Your task to perform on an android device: set default search engine in the chrome app Image 0: 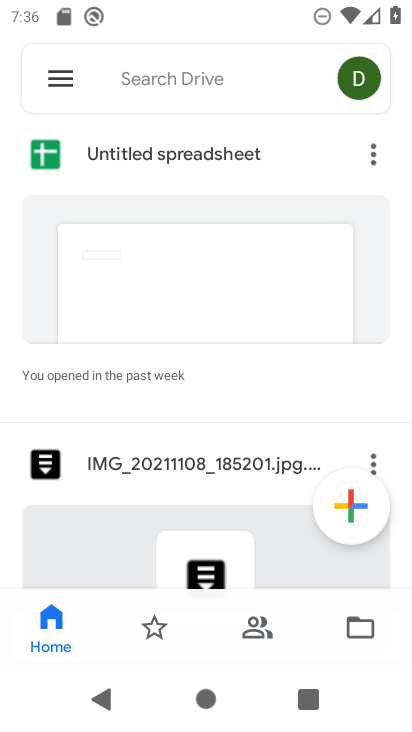
Step 0: press home button
Your task to perform on an android device: set default search engine in the chrome app Image 1: 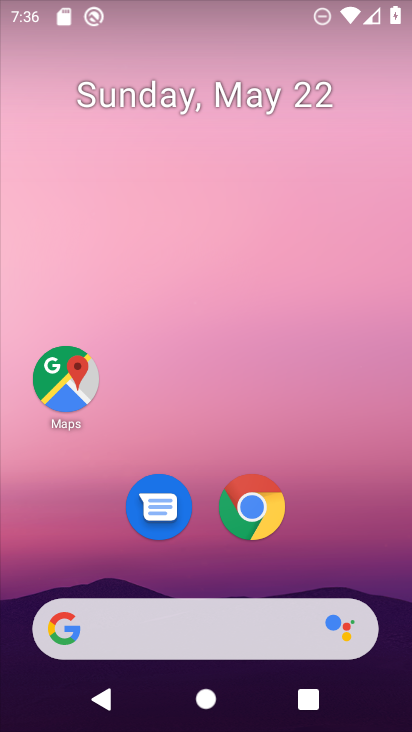
Step 1: click (258, 505)
Your task to perform on an android device: set default search engine in the chrome app Image 2: 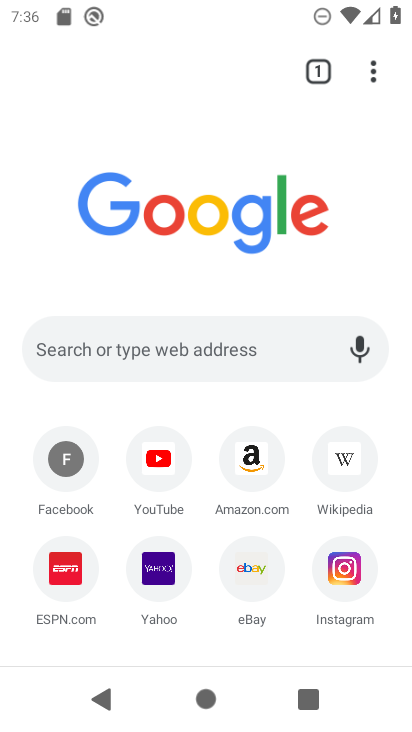
Step 2: click (375, 69)
Your task to perform on an android device: set default search engine in the chrome app Image 3: 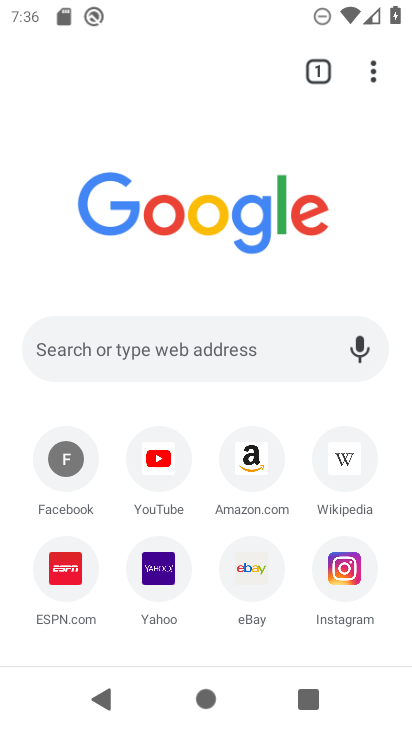
Step 3: click (382, 76)
Your task to perform on an android device: set default search engine in the chrome app Image 4: 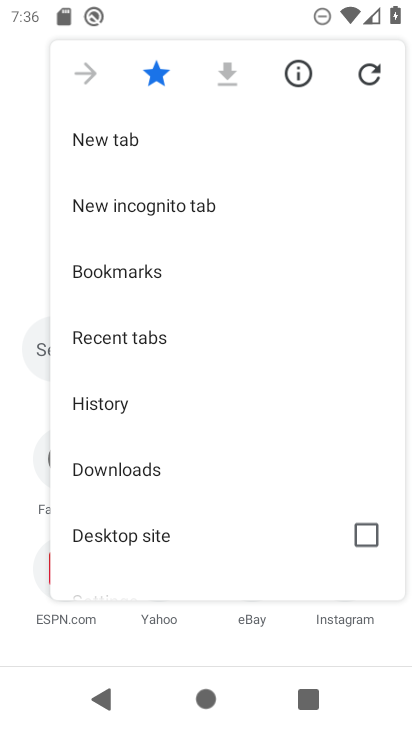
Step 4: drag from (173, 513) to (160, 1)
Your task to perform on an android device: set default search engine in the chrome app Image 5: 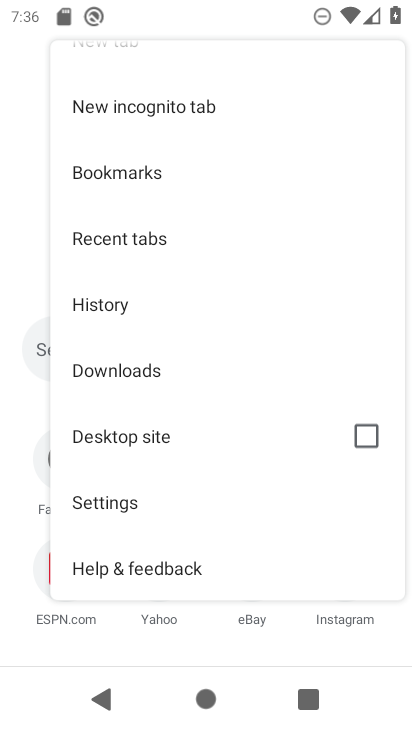
Step 5: click (172, 492)
Your task to perform on an android device: set default search engine in the chrome app Image 6: 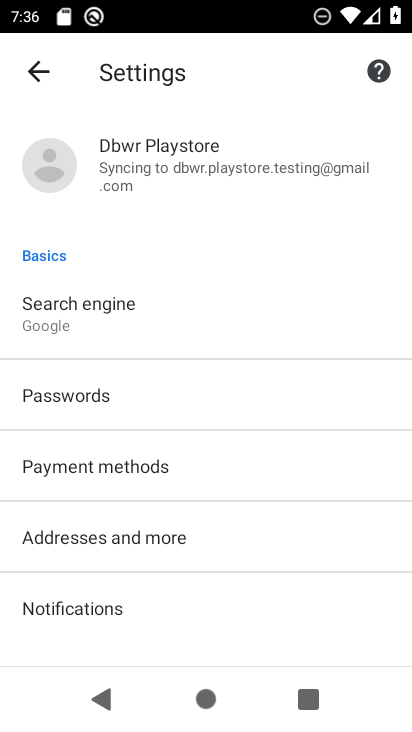
Step 6: click (110, 292)
Your task to perform on an android device: set default search engine in the chrome app Image 7: 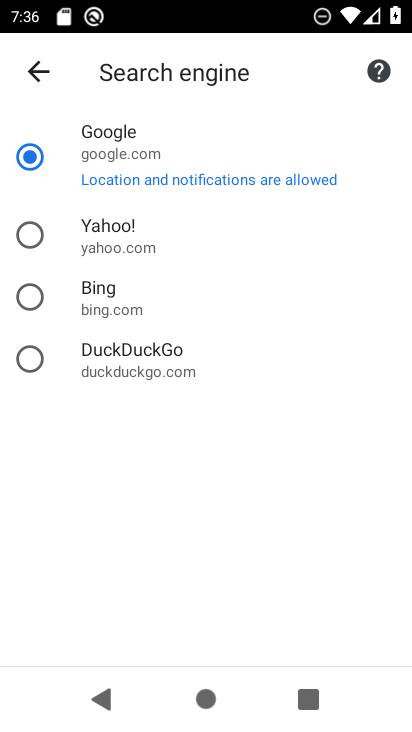
Step 7: task complete